Your task to perform on an android device: turn on translation in the chrome app Image 0: 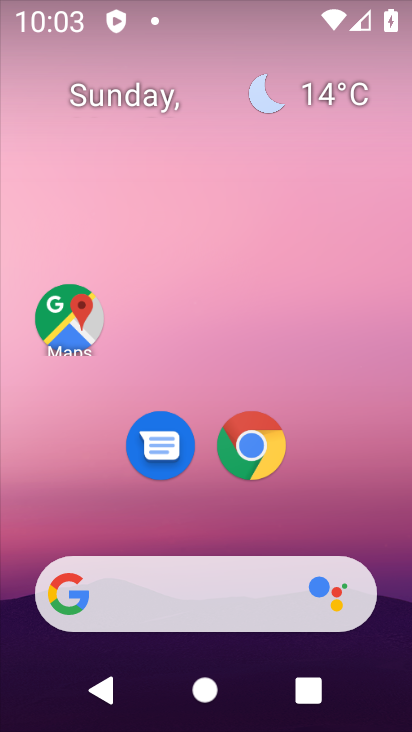
Step 0: drag from (179, 543) to (256, 0)
Your task to perform on an android device: turn on translation in the chrome app Image 1: 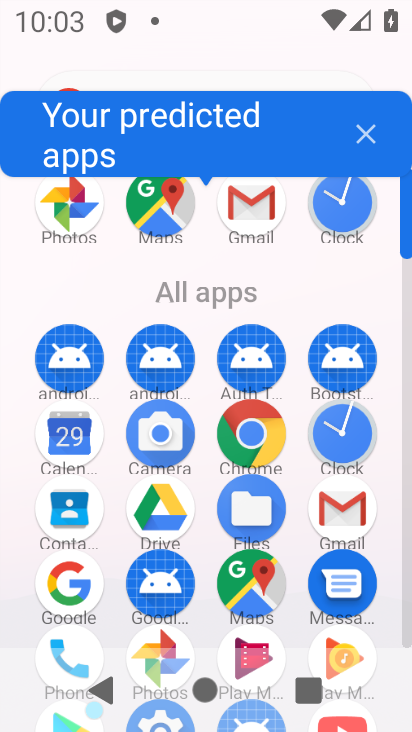
Step 1: click (245, 425)
Your task to perform on an android device: turn on translation in the chrome app Image 2: 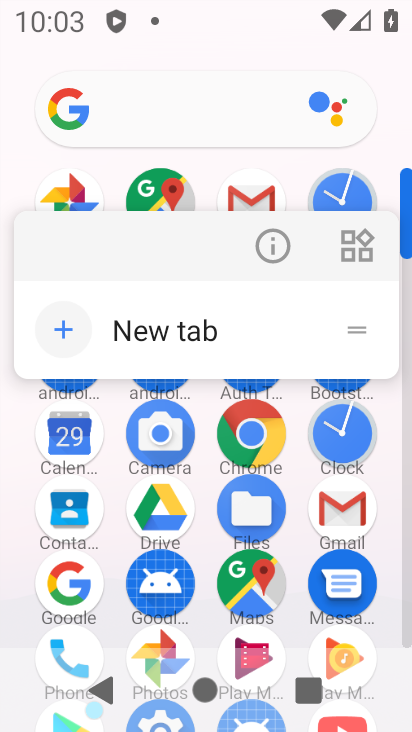
Step 2: click (275, 253)
Your task to perform on an android device: turn on translation in the chrome app Image 3: 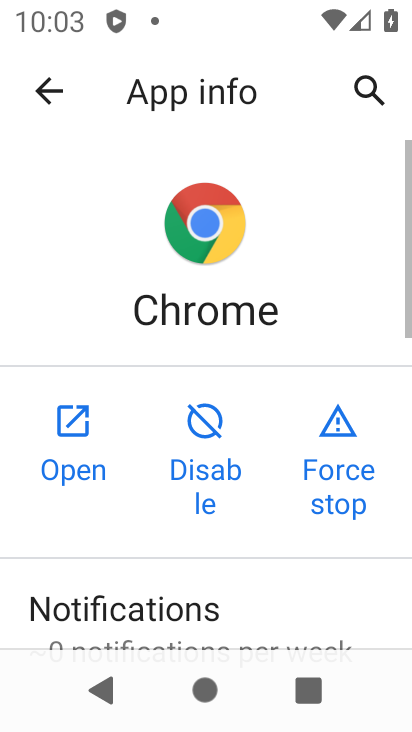
Step 3: click (78, 413)
Your task to perform on an android device: turn on translation in the chrome app Image 4: 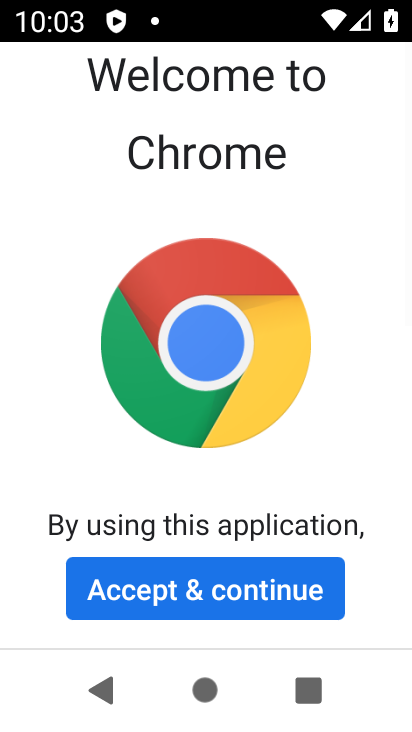
Step 4: click (209, 582)
Your task to perform on an android device: turn on translation in the chrome app Image 5: 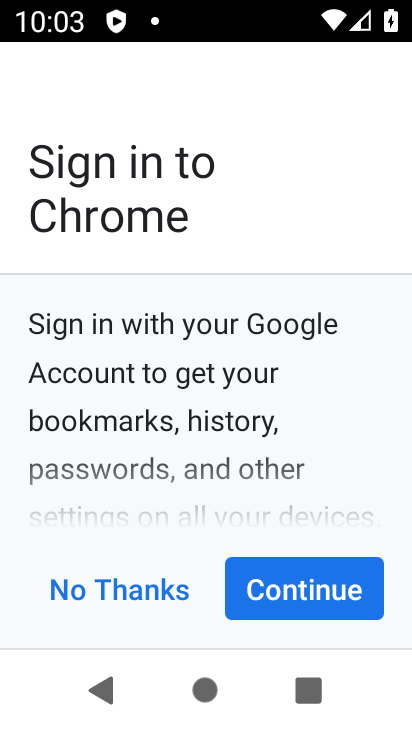
Step 5: click (128, 604)
Your task to perform on an android device: turn on translation in the chrome app Image 6: 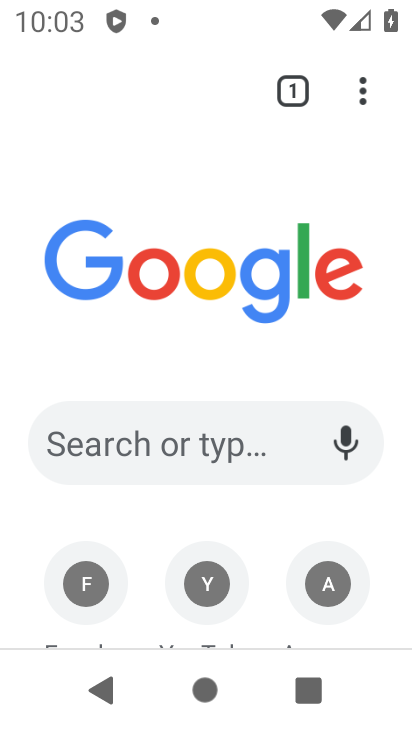
Step 6: drag from (366, 79) to (166, 470)
Your task to perform on an android device: turn on translation in the chrome app Image 7: 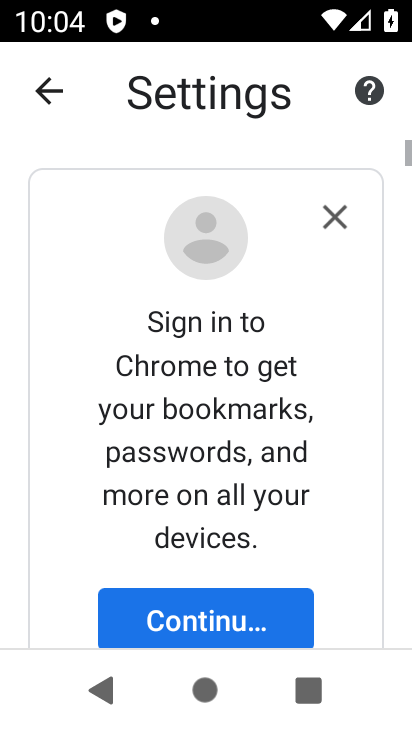
Step 7: drag from (250, 480) to (388, 201)
Your task to perform on an android device: turn on translation in the chrome app Image 8: 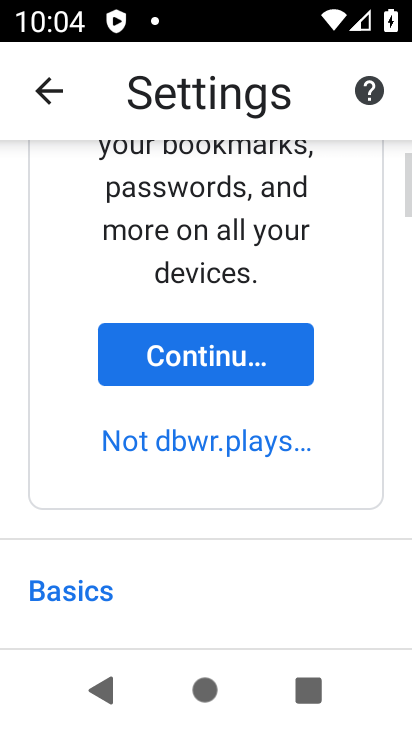
Step 8: drag from (195, 576) to (311, 102)
Your task to perform on an android device: turn on translation in the chrome app Image 9: 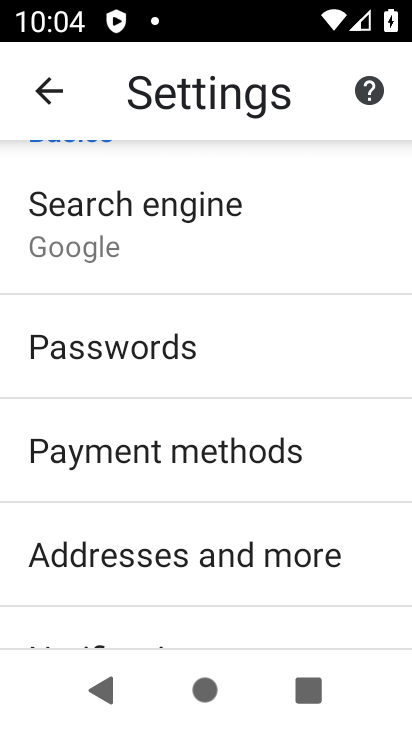
Step 9: drag from (200, 563) to (361, 100)
Your task to perform on an android device: turn on translation in the chrome app Image 10: 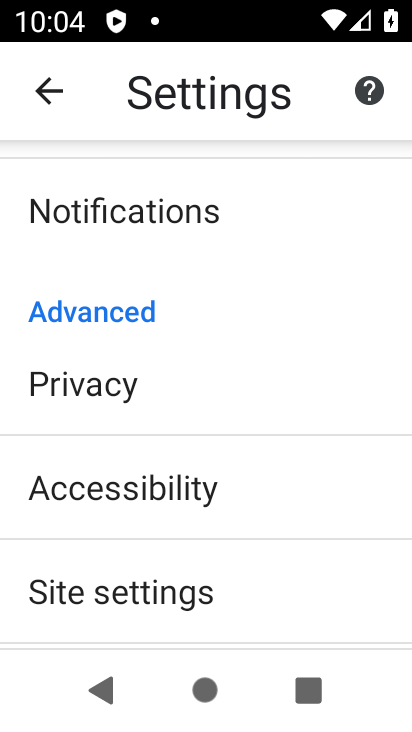
Step 10: drag from (170, 529) to (306, 84)
Your task to perform on an android device: turn on translation in the chrome app Image 11: 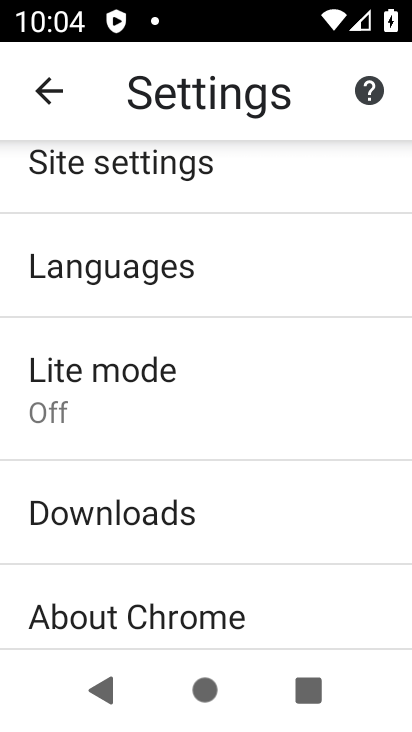
Step 11: click (200, 278)
Your task to perform on an android device: turn on translation in the chrome app Image 12: 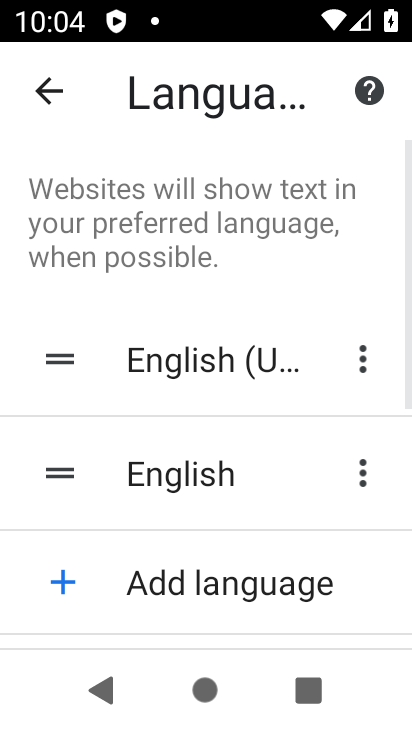
Step 12: task complete